Your task to perform on an android device: turn on airplane mode Image 0: 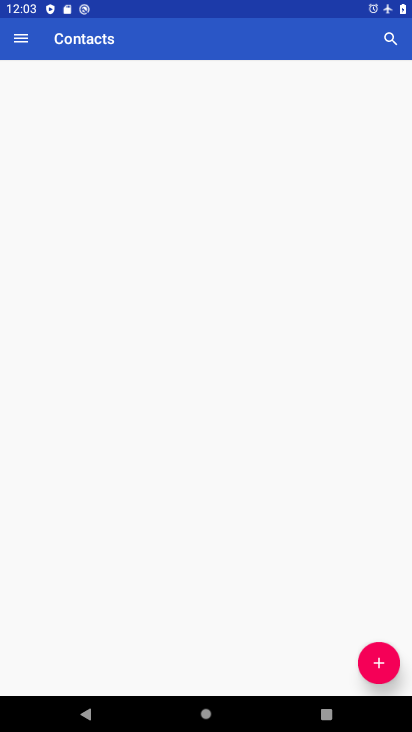
Step 0: drag from (194, 641) to (143, 239)
Your task to perform on an android device: turn on airplane mode Image 1: 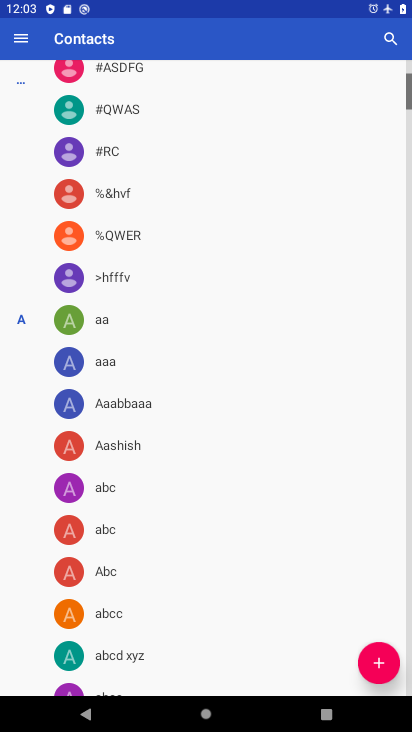
Step 1: press home button
Your task to perform on an android device: turn on airplane mode Image 2: 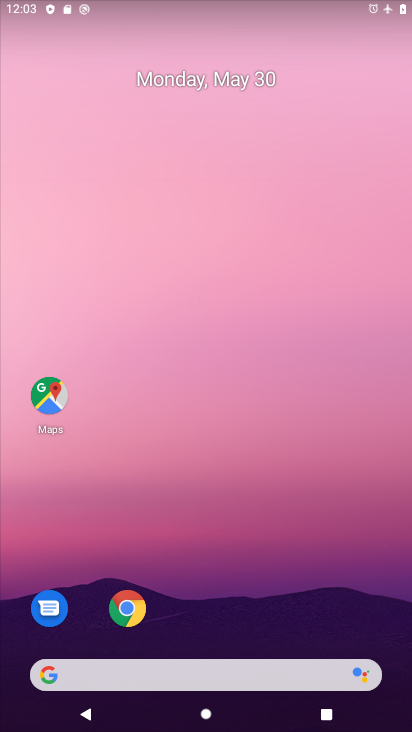
Step 2: drag from (208, 653) to (145, 9)
Your task to perform on an android device: turn on airplane mode Image 3: 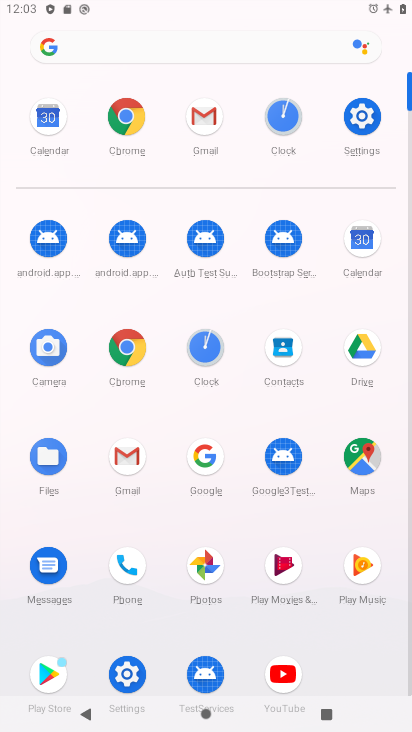
Step 3: click (340, 125)
Your task to perform on an android device: turn on airplane mode Image 4: 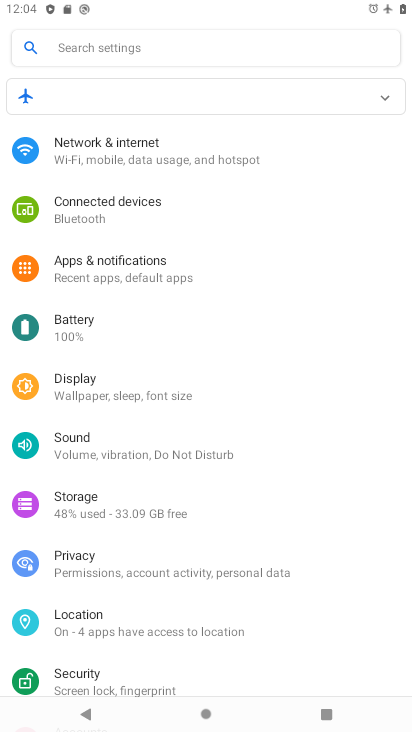
Step 4: click (96, 155)
Your task to perform on an android device: turn on airplane mode Image 5: 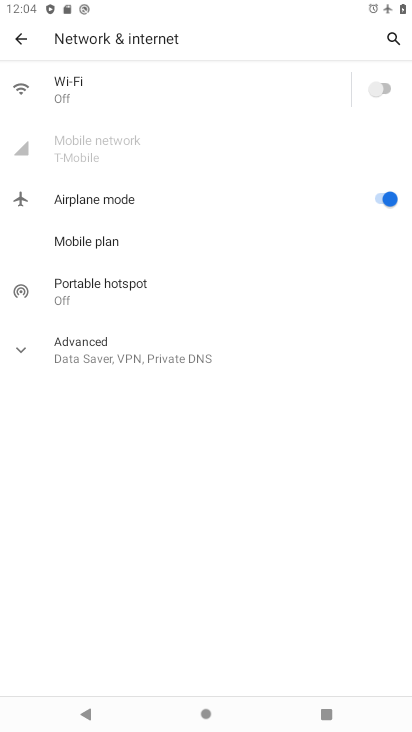
Step 5: task complete